Your task to perform on an android device: Open Google Maps Image 0: 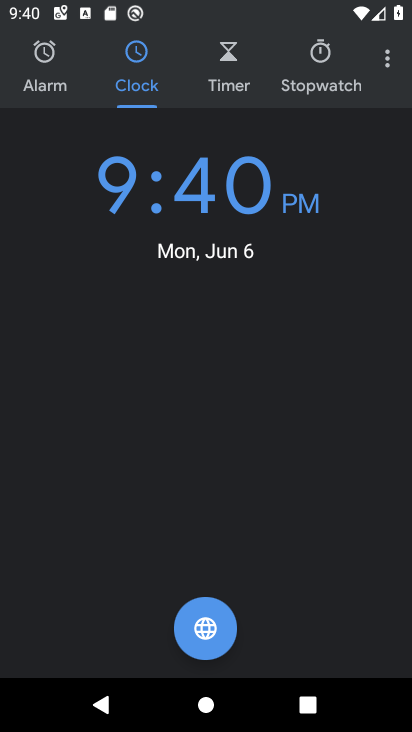
Step 0: press home button
Your task to perform on an android device: Open Google Maps Image 1: 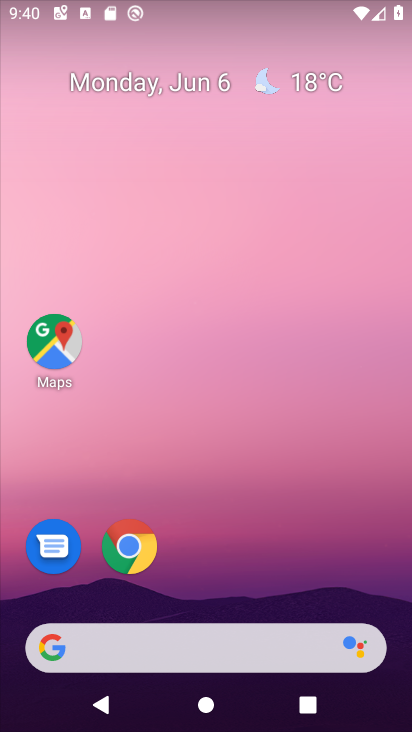
Step 1: click (55, 338)
Your task to perform on an android device: Open Google Maps Image 2: 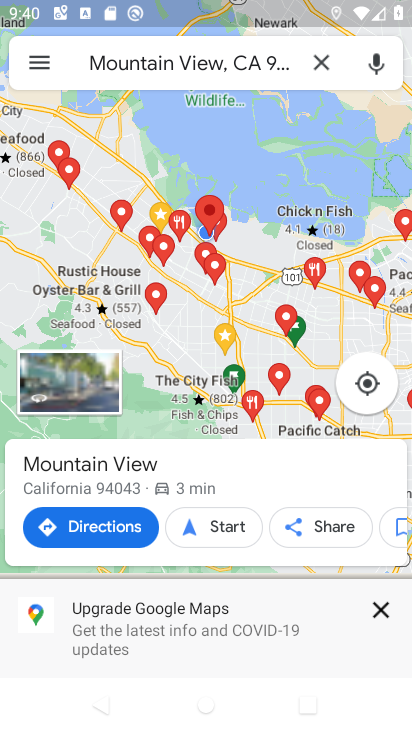
Step 2: click (320, 55)
Your task to perform on an android device: Open Google Maps Image 3: 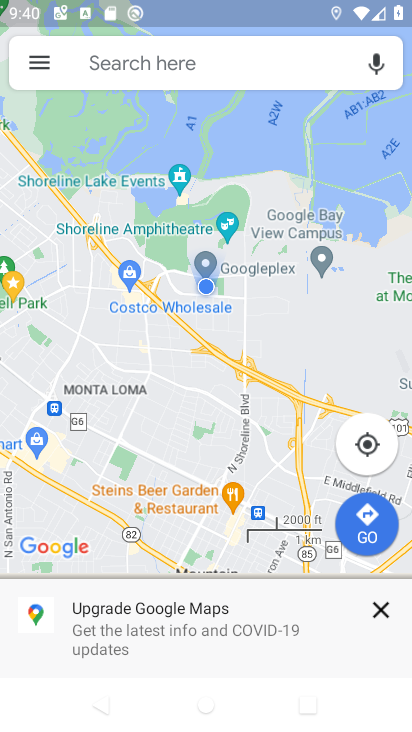
Step 3: task complete